Your task to perform on an android device: change the upload size in google photos Image 0: 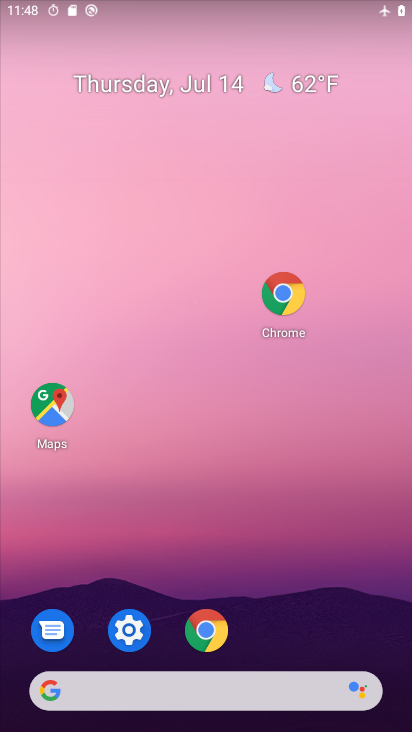
Step 0: drag from (267, 634) to (275, 309)
Your task to perform on an android device: change the upload size in google photos Image 1: 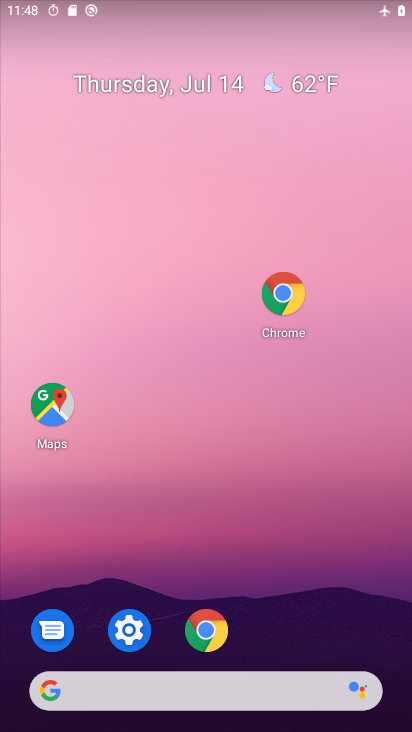
Step 1: drag from (288, 638) to (233, 117)
Your task to perform on an android device: change the upload size in google photos Image 2: 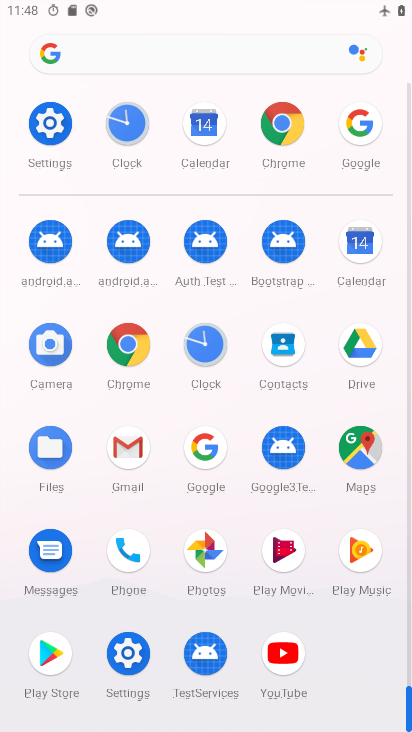
Step 2: click (200, 557)
Your task to perform on an android device: change the upload size in google photos Image 3: 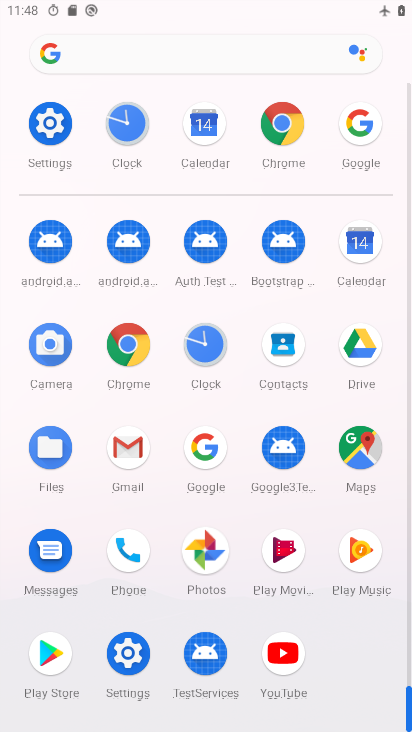
Step 3: click (206, 553)
Your task to perform on an android device: change the upload size in google photos Image 4: 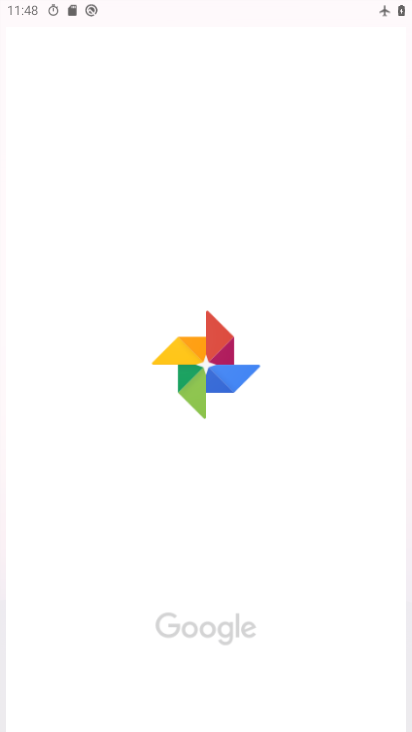
Step 4: click (207, 552)
Your task to perform on an android device: change the upload size in google photos Image 5: 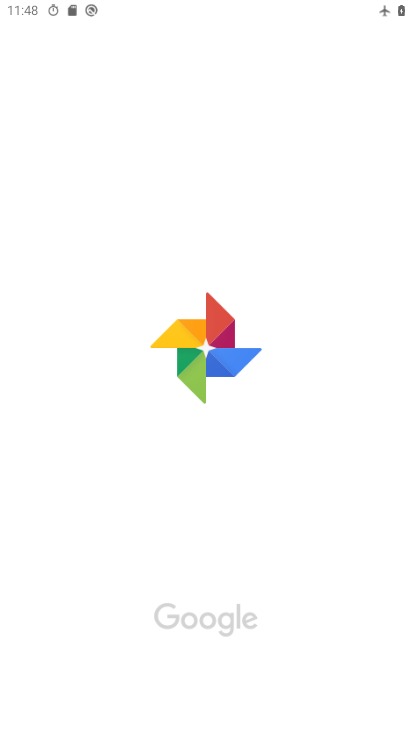
Step 5: click (209, 550)
Your task to perform on an android device: change the upload size in google photos Image 6: 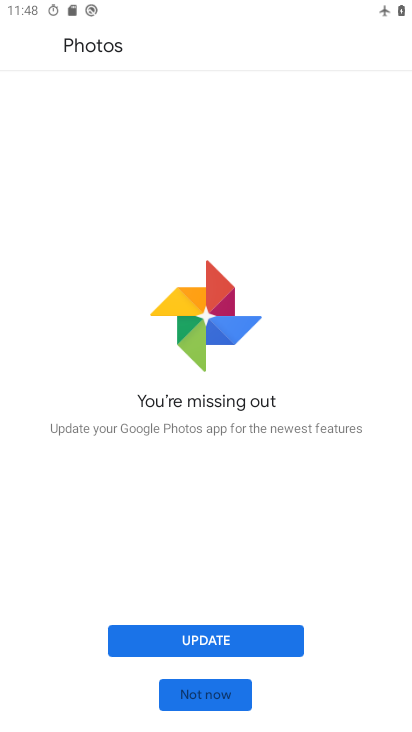
Step 6: click (206, 704)
Your task to perform on an android device: change the upload size in google photos Image 7: 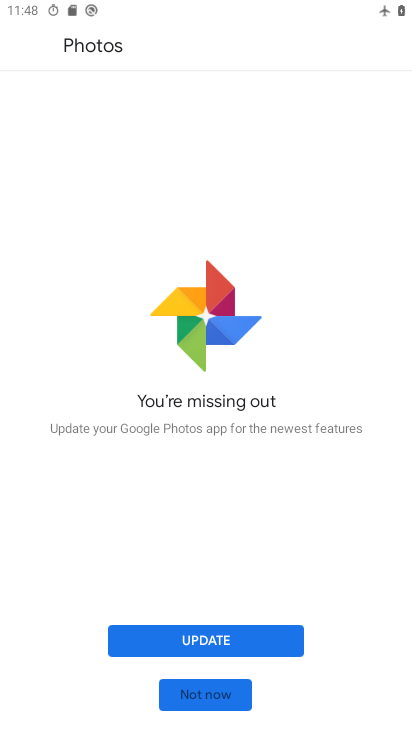
Step 7: click (206, 700)
Your task to perform on an android device: change the upload size in google photos Image 8: 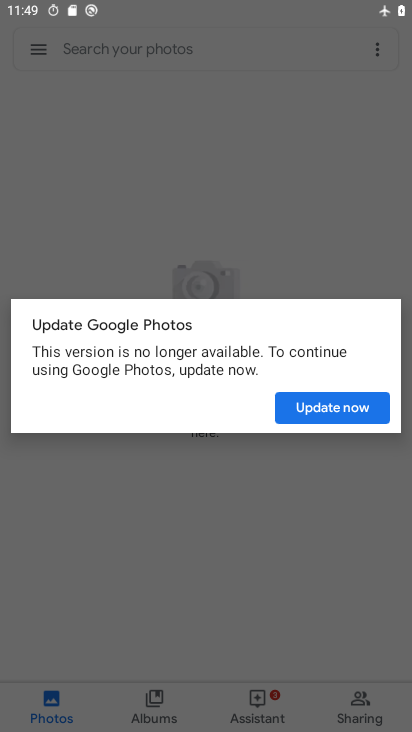
Step 8: click (344, 414)
Your task to perform on an android device: change the upload size in google photos Image 9: 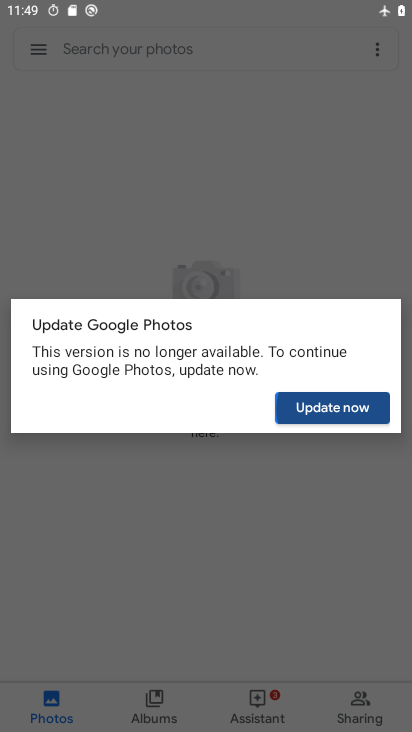
Step 9: click (345, 412)
Your task to perform on an android device: change the upload size in google photos Image 10: 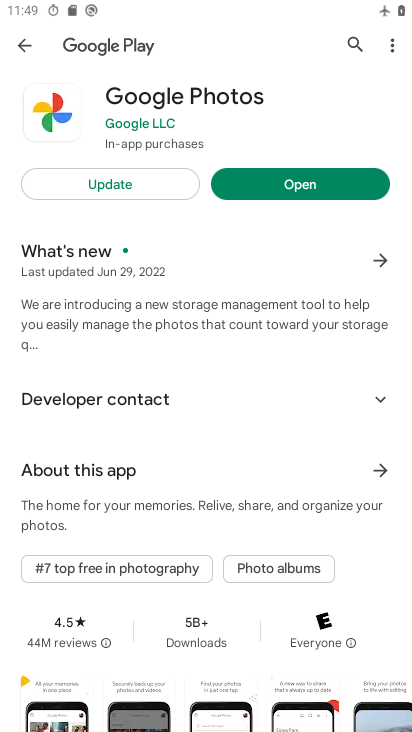
Step 10: click (147, 177)
Your task to perform on an android device: change the upload size in google photos Image 11: 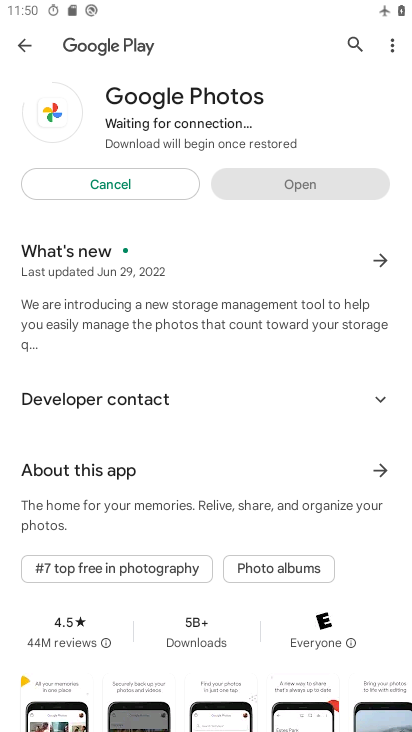
Step 11: task complete